Your task to perform on an android device: choose inbox layout in the gmail app Image 0: 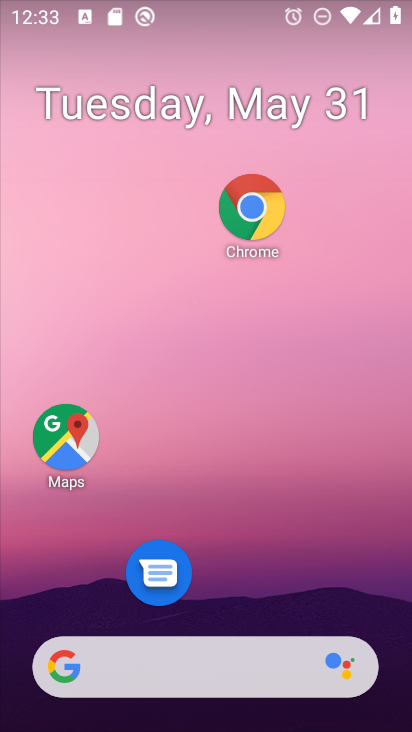
Step 0: drag from (229, 679) to (276, 13)
Your task to perform on an android device: choose inbox layout in the gmail app Image 1: 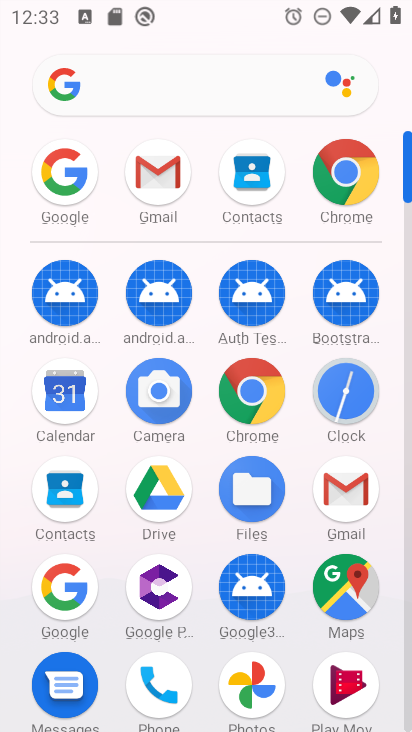
Step 1: click (365, 482)
Your task to perform on an android device: choose inbox layout in the gmail app Image 2: 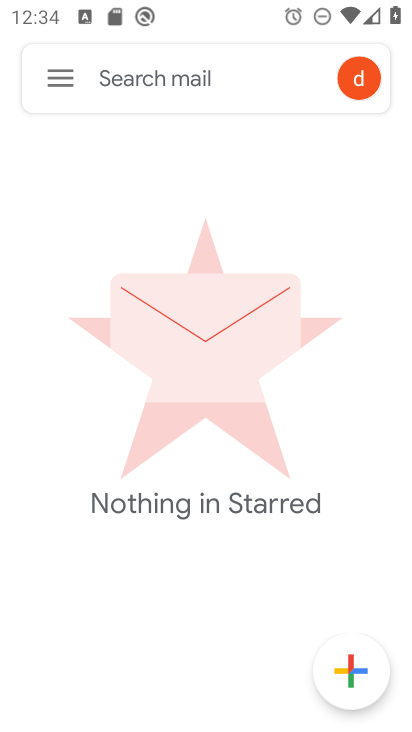
Step 2: click (59, 77)
Your task to perform on an android device: choose inbox layout in the gmail app Image 3: 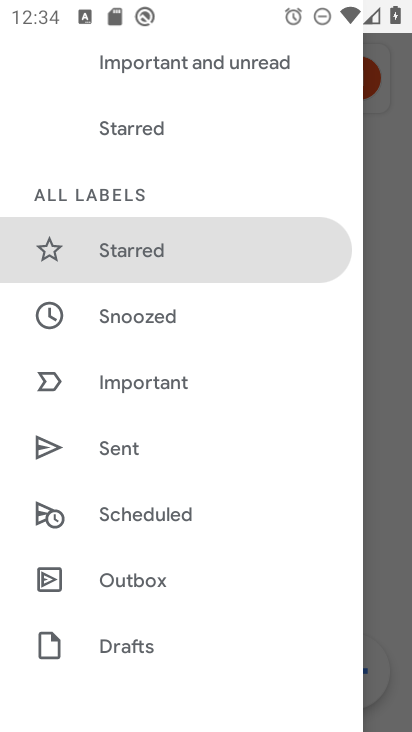
Step 3: drag from (111, 488) to (139, 199)
Your task to perform on an android device: choose inbox layout in the gmail app Image 4: 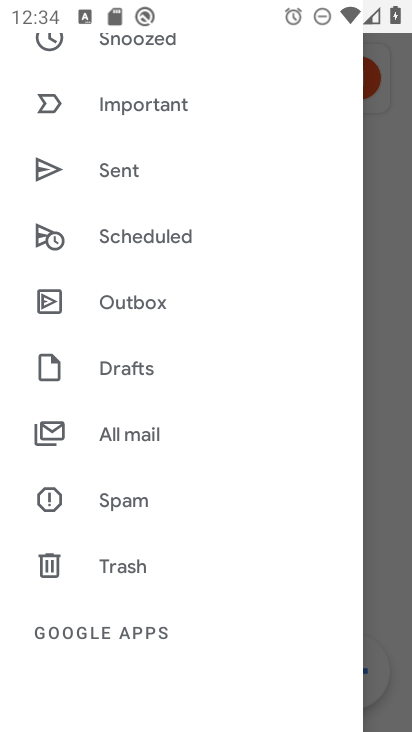
Step 4: drag from (117, 530) to (139, 158)
Your task to perform on an android device: choose inbox layout in the gmail app Image 5: 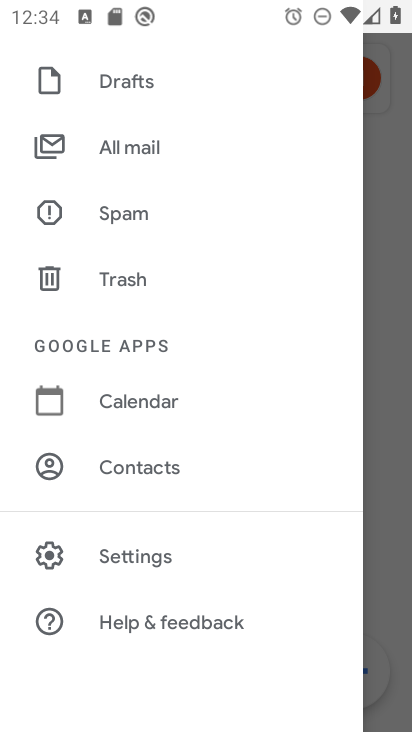
Step 5: click (120, 569)
Your task to perform on an android device: choose inbox layout in the gmail app Image 6: 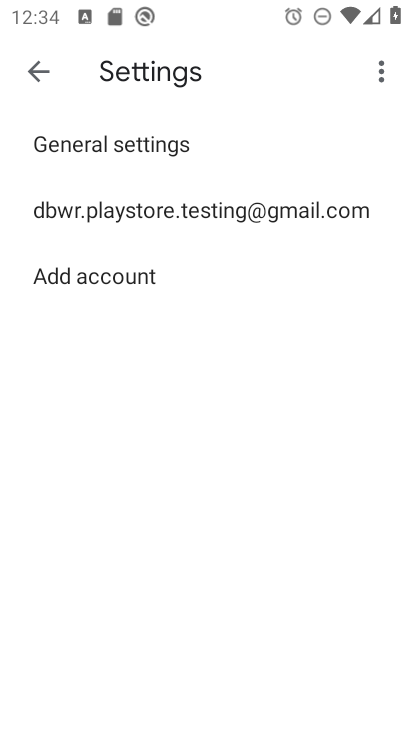
Step 6: task complete